Your task to perform on an android device: Open Chrome and go to settings Image 0: 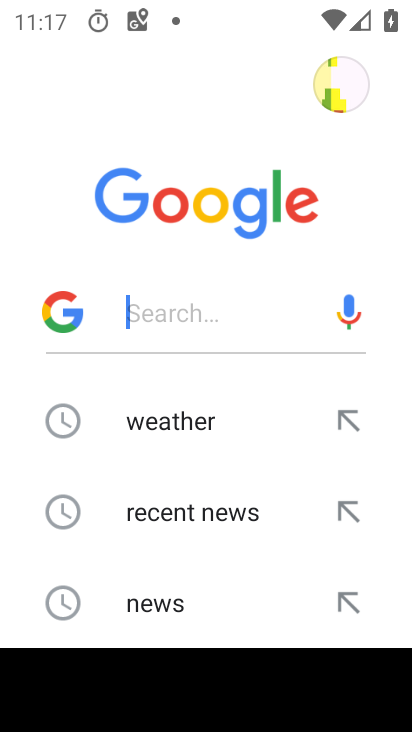
Step 0: press home button
Your task to perform on an android device: Open Chrome and go to settings Image 1: 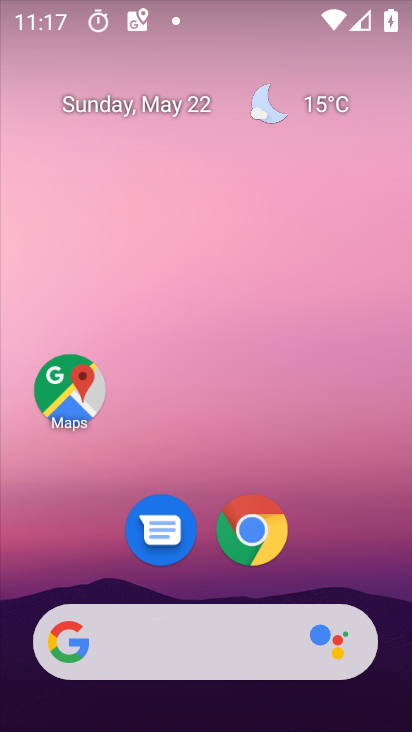
Step 1: click (263, 525)
Your task to perform on an android device: Open Chrome and go to settings Image 2: 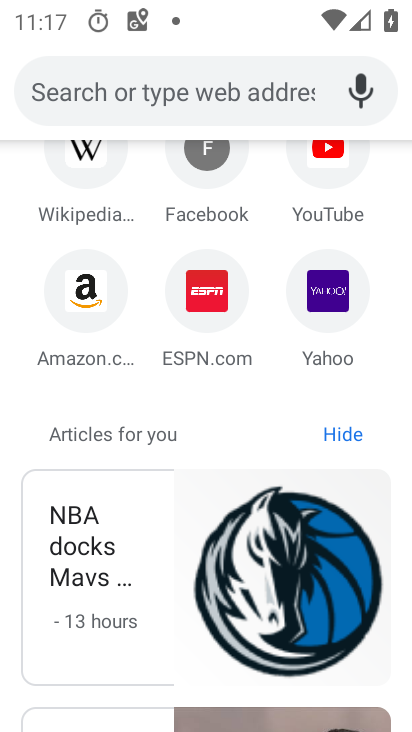
Step 2: drag from (379, 164) to (365, 512)
Your task to perform on an android device: Open Chrome and go to settings Image 3: 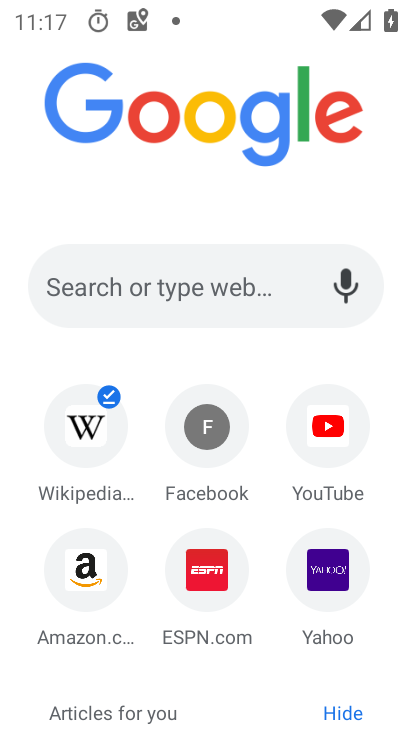
Step 3: drag from (381, 227) to (364, 542)
Your task to perform on an android device: Open Chrome and go to settings Image 4: 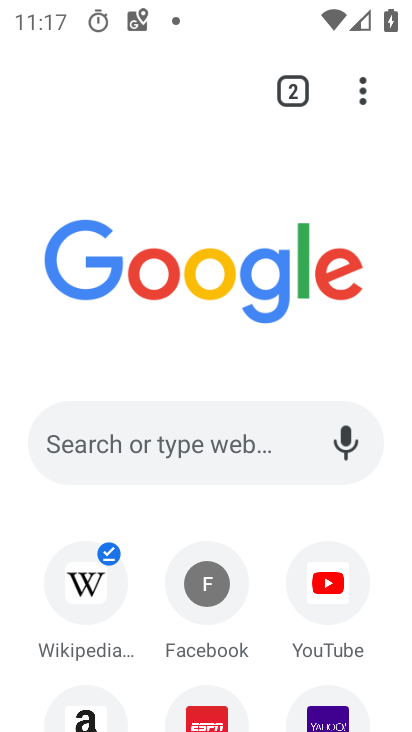
Step 4: click (364, 80)
Your task to perform on an android device: Open Chrome and go to settings Image 5: 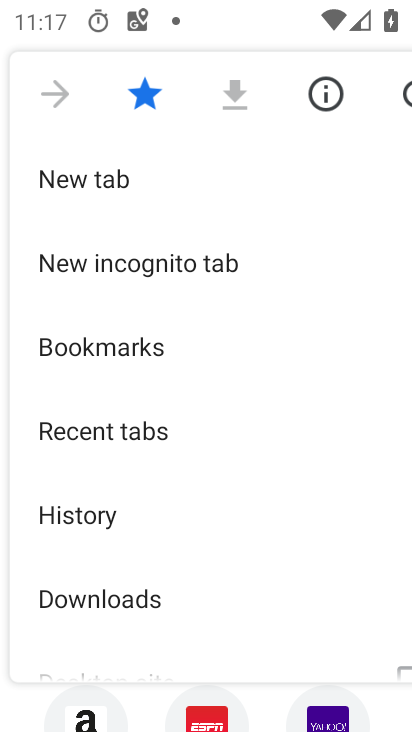
Step 5: drag from (255, 627) to (217, 207)
Your task to perform on an android device: Open Chrome and go to settings Image 6: 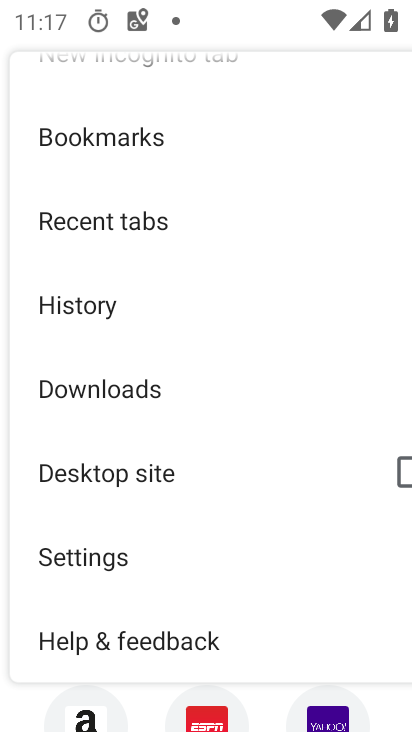
Step 6: click (101, 558)
Your task to perform on an android device: Open Chrome and go to settings Image 7: 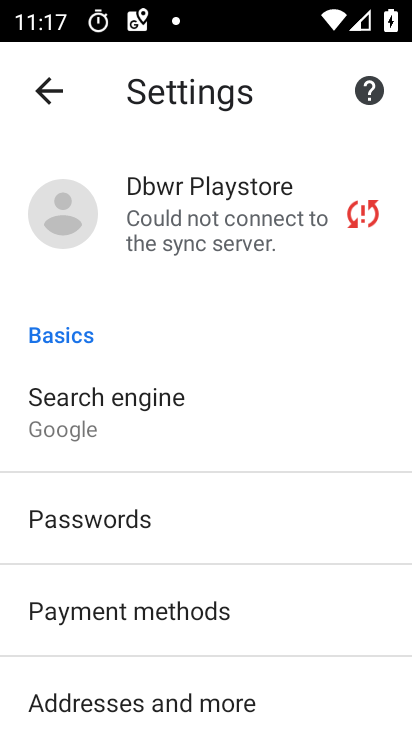
Step 7: task complete